Your task to perform on an android device: empty trash in the gmail app Image 0: 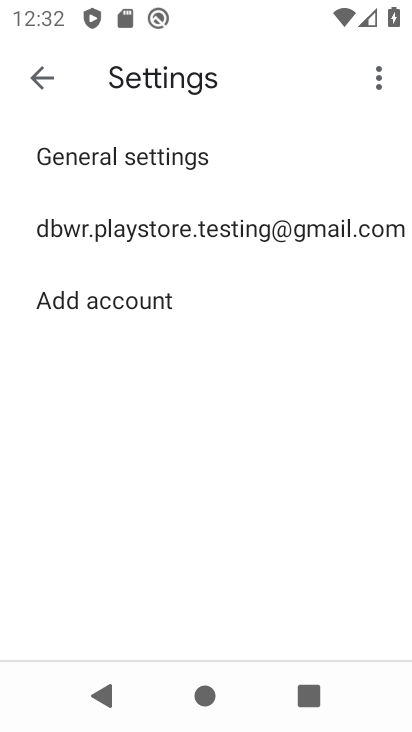
Step 0: press home button
Your task to perform on an android device: empty trash in the gmail app Image 1: 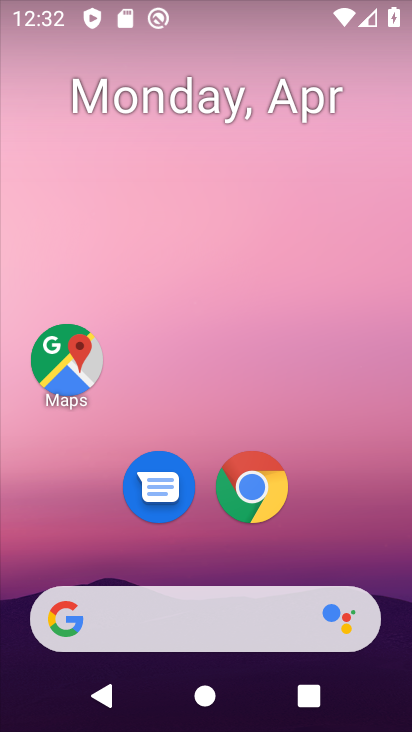
Step 1: drag from (363, 521) to (203, 79)
Your task to perform on an android device: empty trash in the gmail app Image 2: 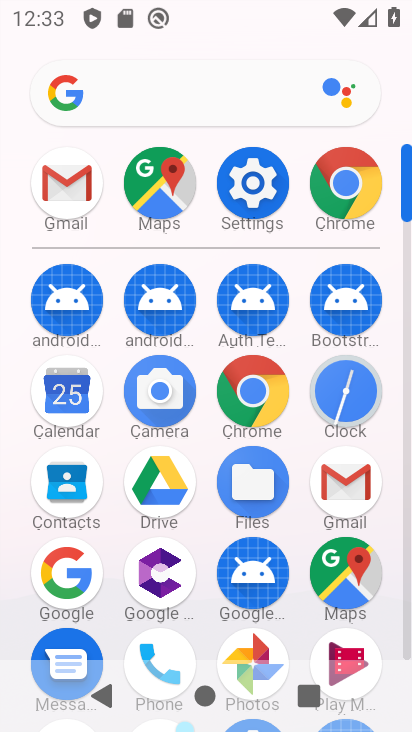
Step 2: click (363, 481)
Your task to perform on an android device: empty trash in the gmail app Image 3: 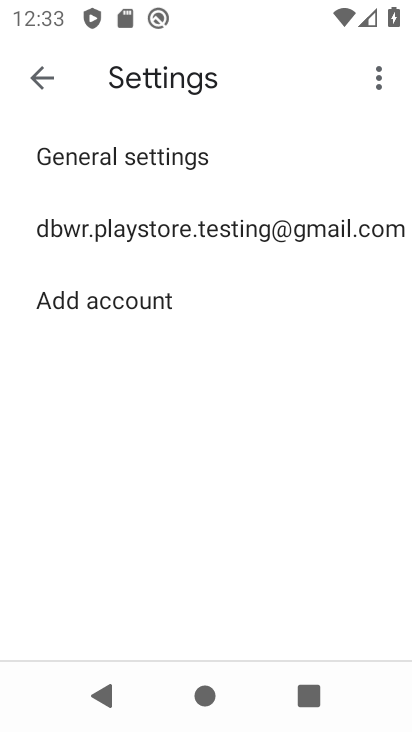
Step 3: click (37, 81)
Your task to perform on an android device: empty trash in the gmail app Image 4: 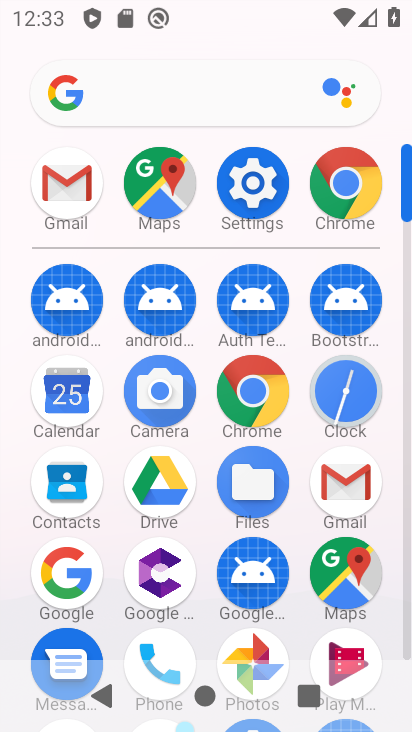
Step 4: click (356, 496)
Your task to perform on an android device: empty trash in the gmail app Image 5: 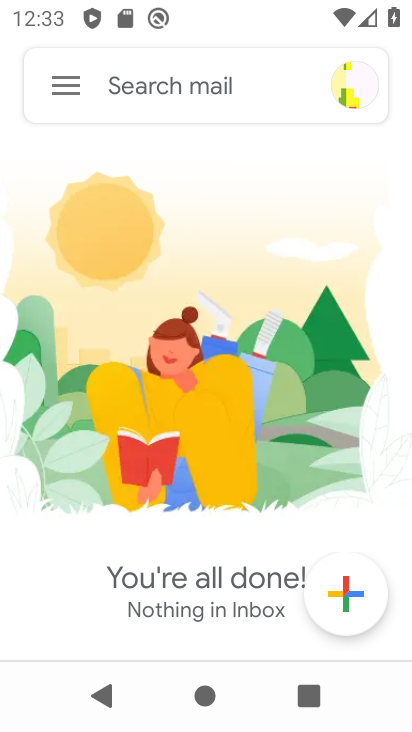
Step 5: click (356, 496)
Your task to perform on an android device: empty trash in the gmail app Image 6: 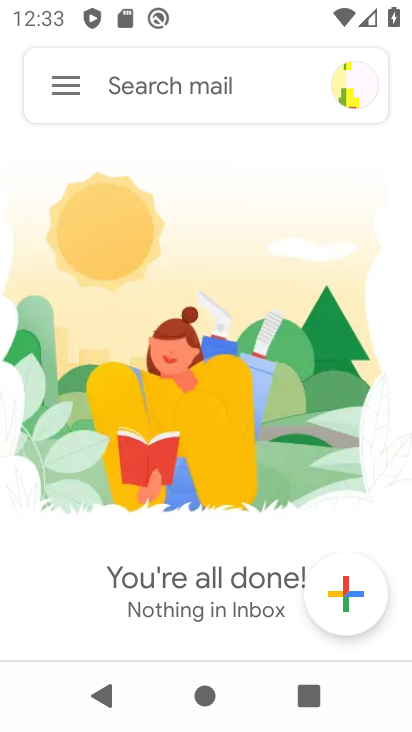
Step 6: click (57, 70)
Your task to perform on an android device: empty trash in the gmail app Image 7: 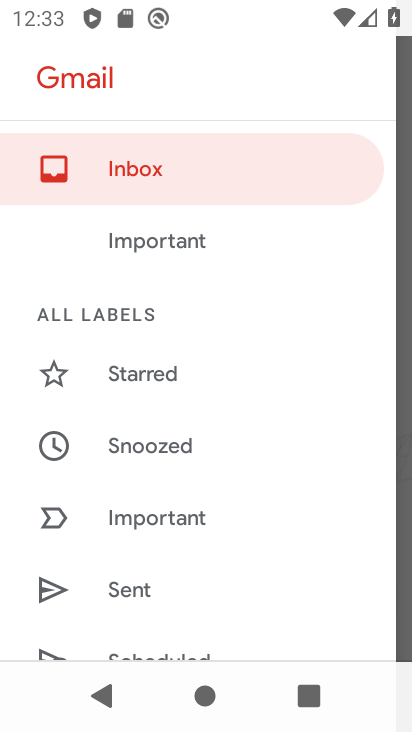
Step 7: drag from (117, 596) to (267, 186)
Your task to perform on an android device: empty trash in the gmail app Image 8: 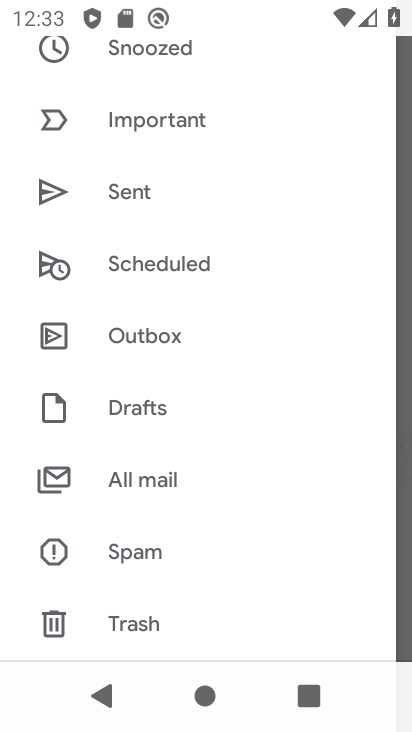
Step 8: click (137, 614)
Your task to perform on an android device: empty trash in the gmail app Image 9: 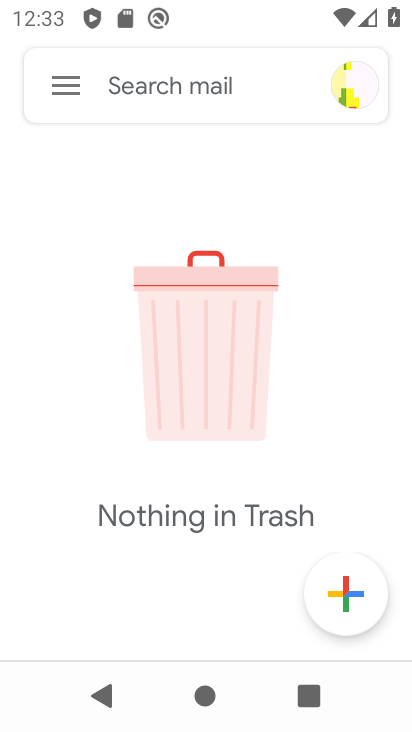
Step 9: task complete